Your task to perform on an android device: Open wifi settings Image 0: 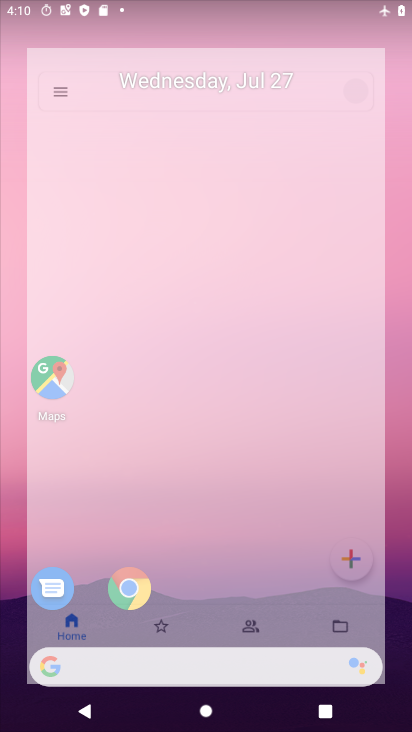
Step 0: press home button
Your task to perform on an android device: Open wifi settings Image 1: 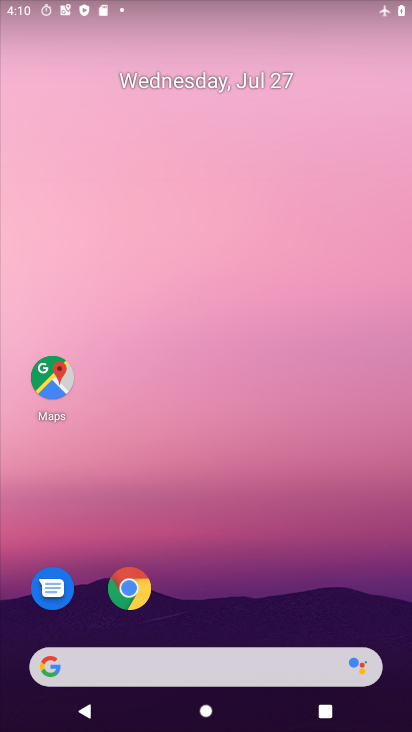
Step 1: drag from (296, 613) to (186, 5)
Your task to perform on an android device: Open wifi settings Image 2: 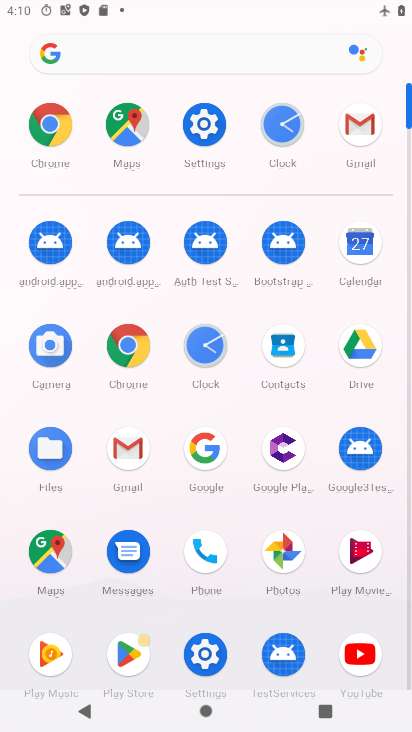
Step 2: click (201, 121)
Your task to perform on an android device: Open wifi settings Image 3: 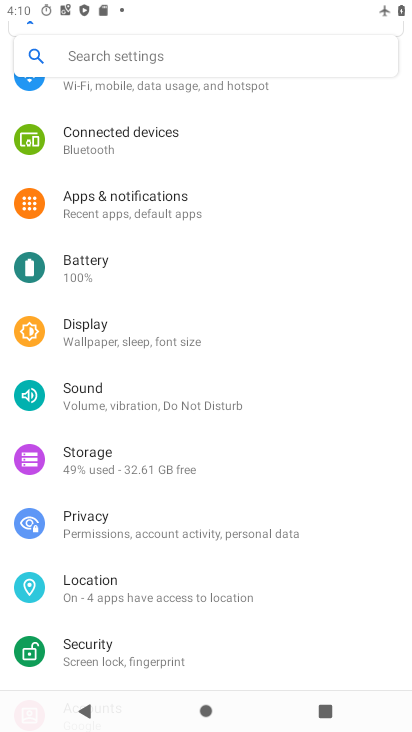
Step 3: click (138, 84)
Your task to perform on an android device: Open wifi settings Image 4: 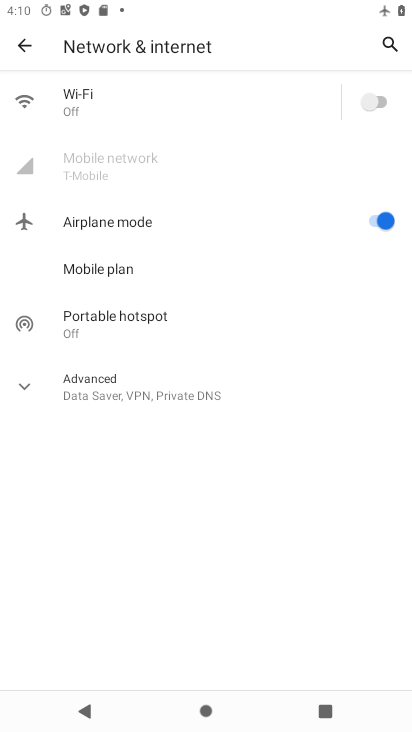
Step 4: click (373, 100)
Your task to perform on an android device: Open wifi settings Image 5: 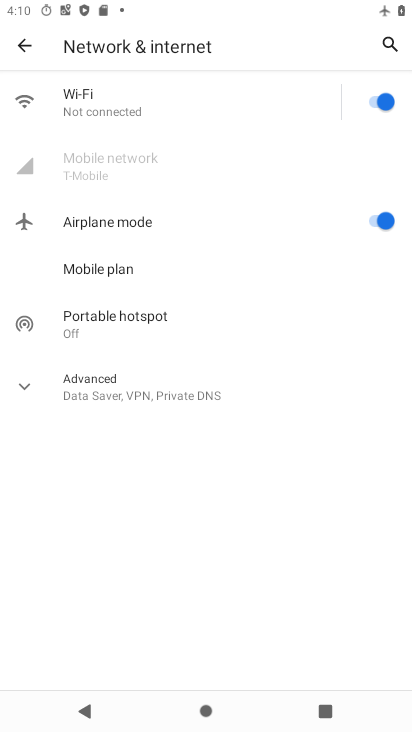
Step 5: click (82, 90)
Your task to perform on an android device: Open wifi settings Image 6: 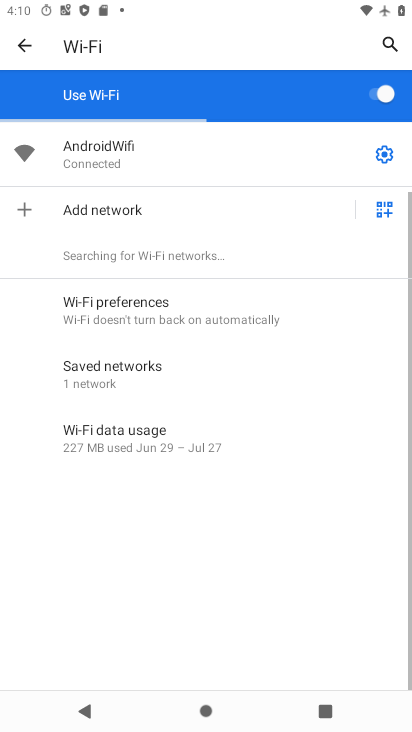
Step 6: task complete